Your task to perform on an android device: delete the emails in spam in the gmail app Image 0: 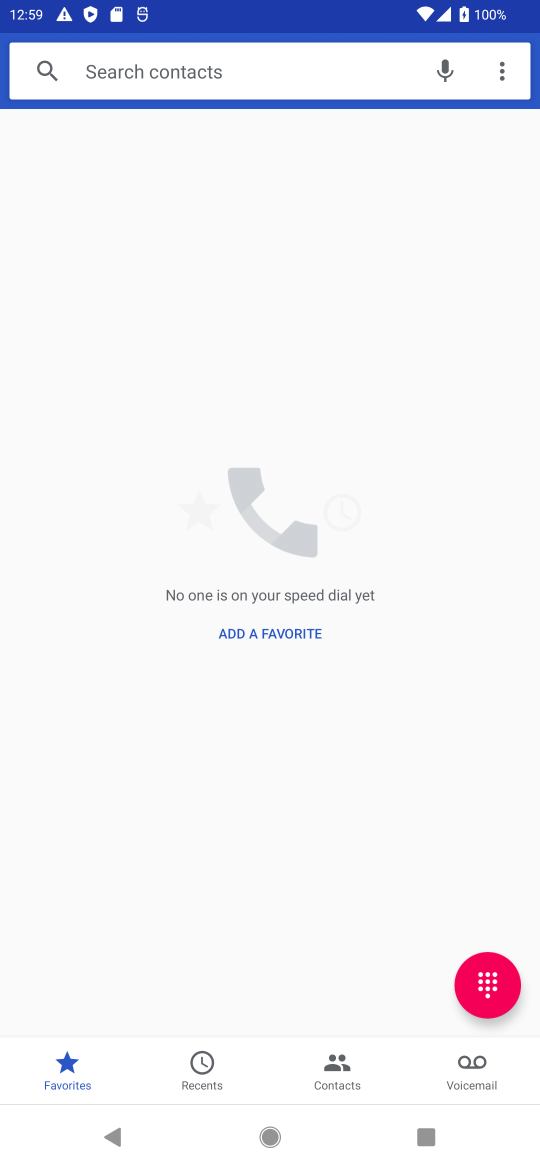
Step 0: press home button
Your task to perform on an android device: delete the emails in spam in the gmail app Image 1: 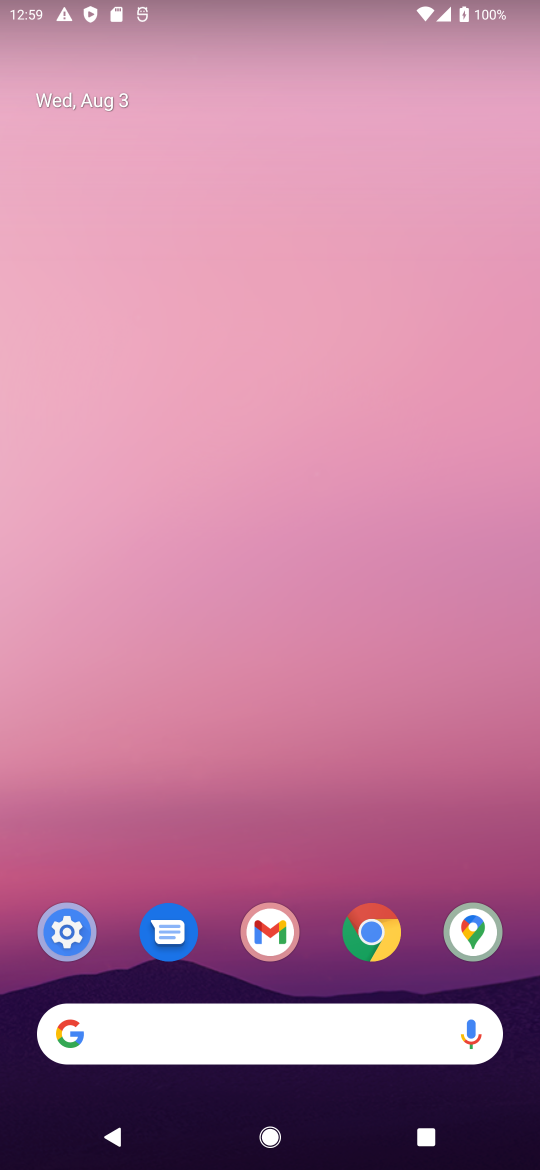
Step 1: click (277, 949)
Your task to perform on an android device: delete the emails in spam in the gmail app Image 2: 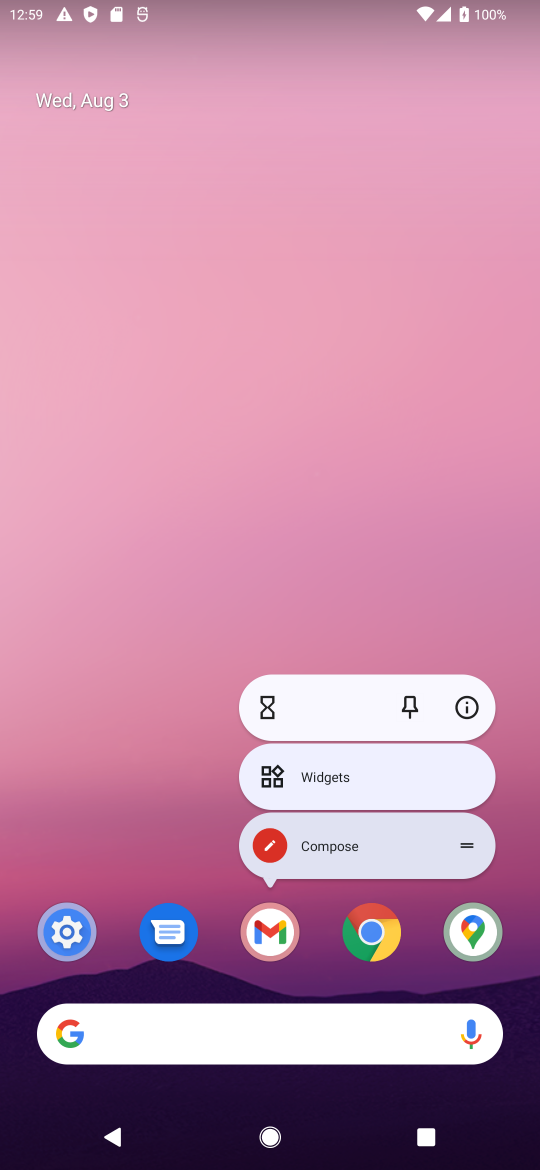
Step 2: click (277, 949)
Your task to perform on an android device: delete the emails in spam in the gmail app Image 3: 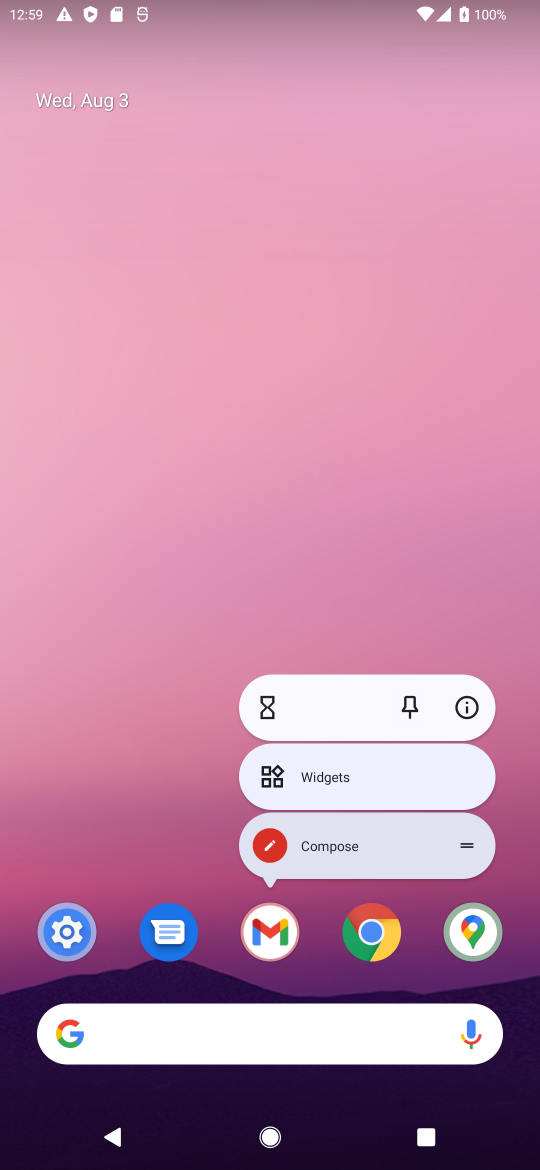
Step 3: click (277, 956)
Your task to perform on an android device: delete the emails in spam in the gmail app Image 4: 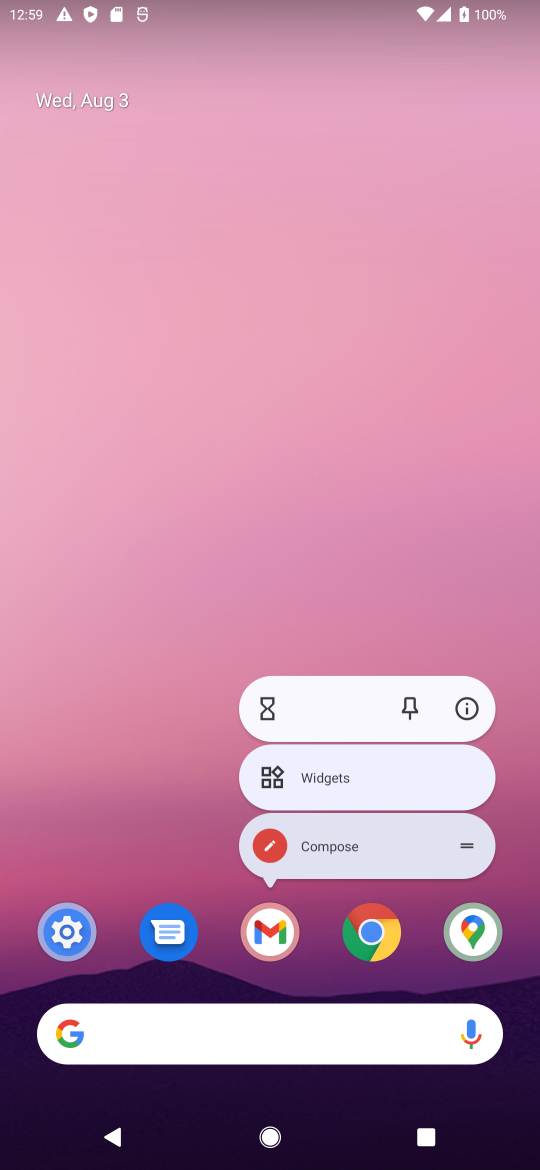
Step 4: click (277, 956)
Your task to perform on an android device: delete the emails in spam in the gmail app Image 5: 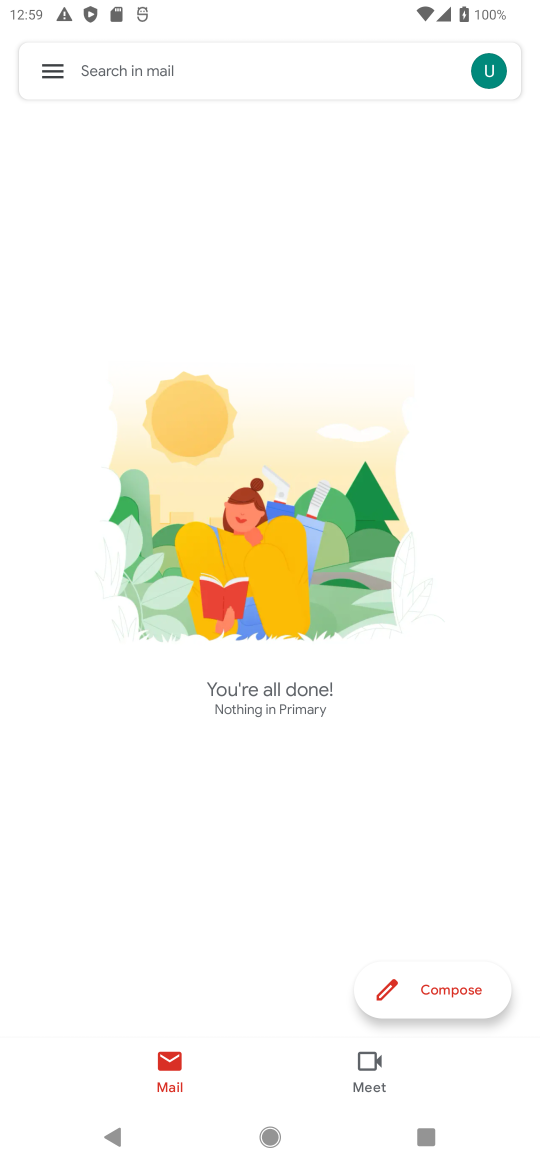
Step 5: task complete